Your task to perform on an android device: Open notification settings Image 0: 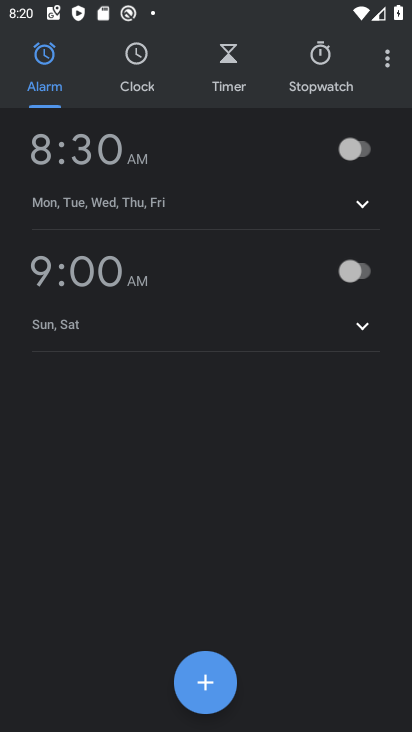
Step 0: press home button
Your task to perform on an android device: Open notification settings Image 1: 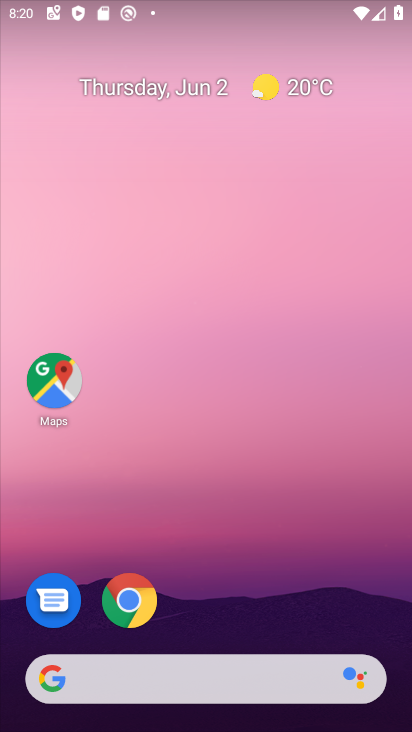
Step 1: drag from (368, 610) to (381, 226)
Your task to perform on an android device: Open notification settings Image 2: 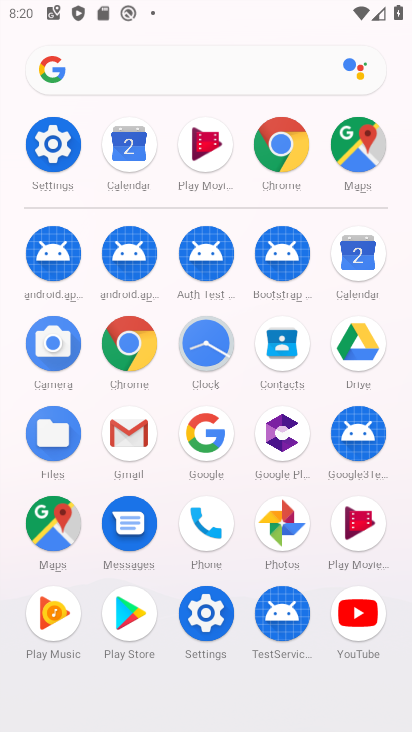
Step 2: click (213, 614)
Your task to perform on an android device: Open notification settings Image 3: 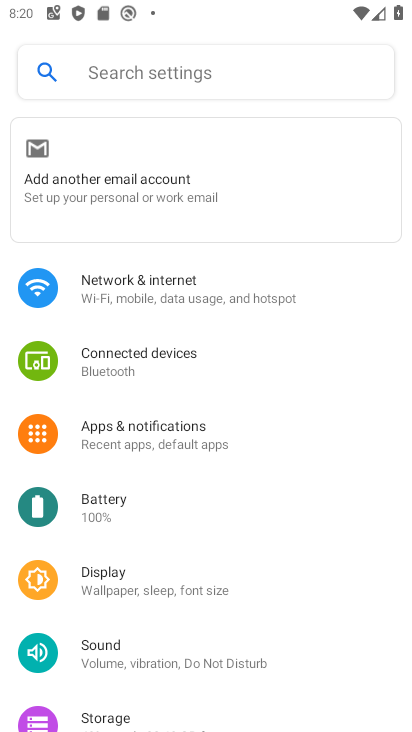
Step 3: drag from (313, 601) to (334, 481)
Your task to perform on an android device: Open notification settings Image 4: 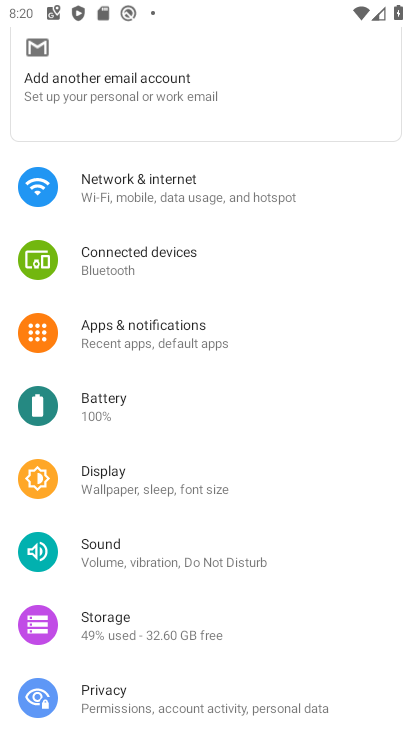
Step 4: drag from (353, 591) to (335, 468)
Your task to perform on an android device: Open notification settings Image 5: 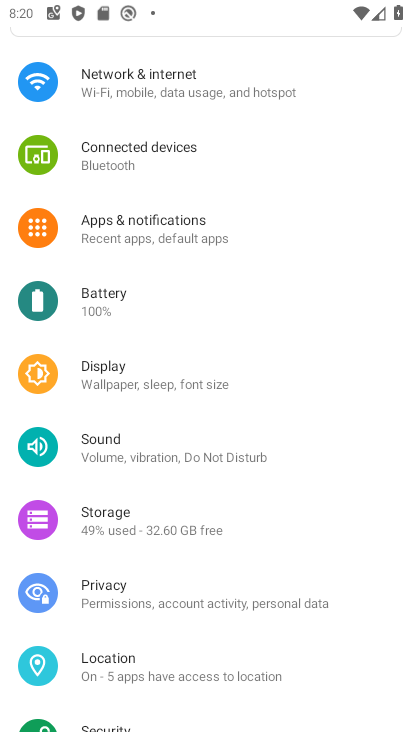
Step 5: drag from (370, 623) to (376, 449)
Your task to perform on an android device: Open notification settings Image 6: 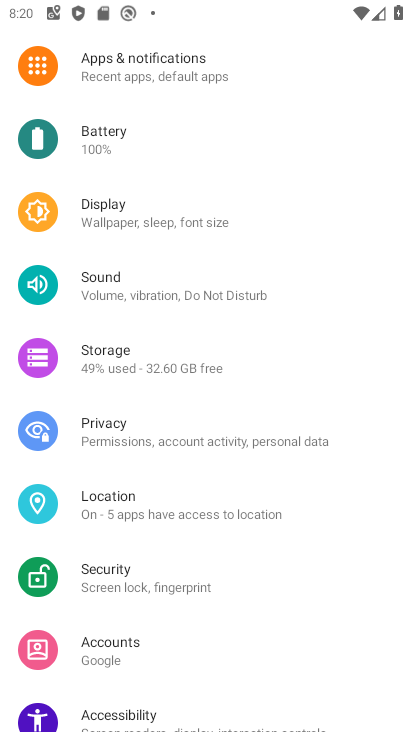
Step 6: drag from (339, 568) to (353, 368)
Your task to perform on an android device: Open notification settings Image 7: 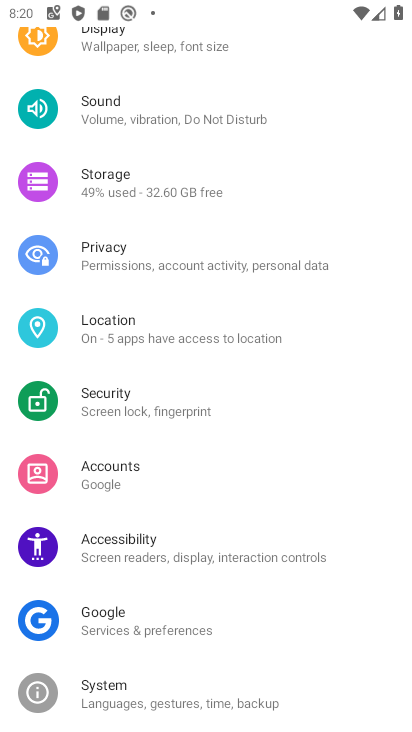
Step 7: drag from (340, 609) to (338, 426)
Your task to perform on an android device: Open notification settings Image 8: 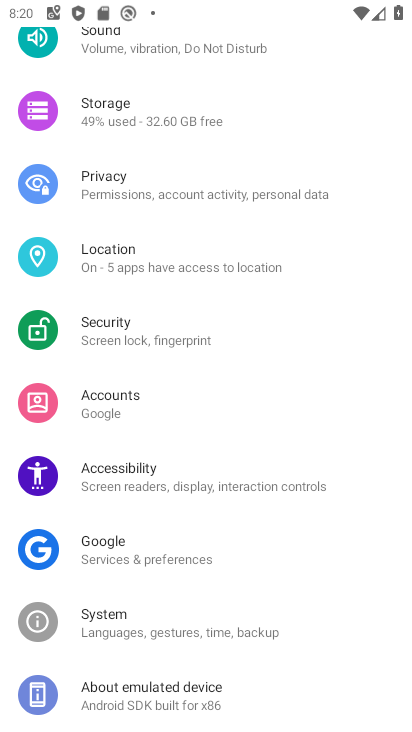
Step 8: drag from (350, 313) to (349, 418)
Your task to perform on an android device: Open notification settings Image 9: 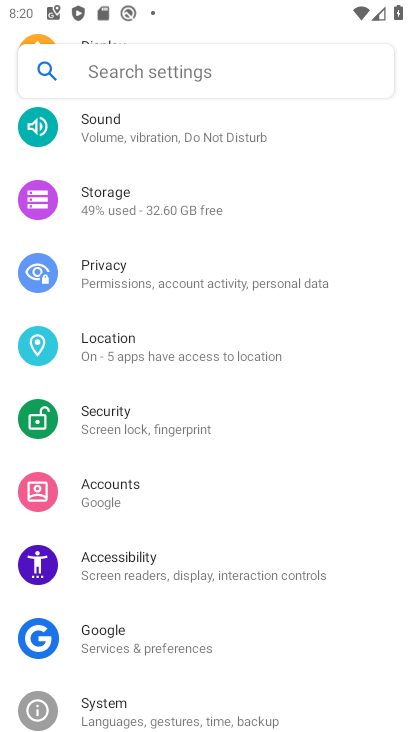
Step 9: drag from (347, 294) to (350, 386)
Your task to perform on an android device: Open notification settings Image 10: 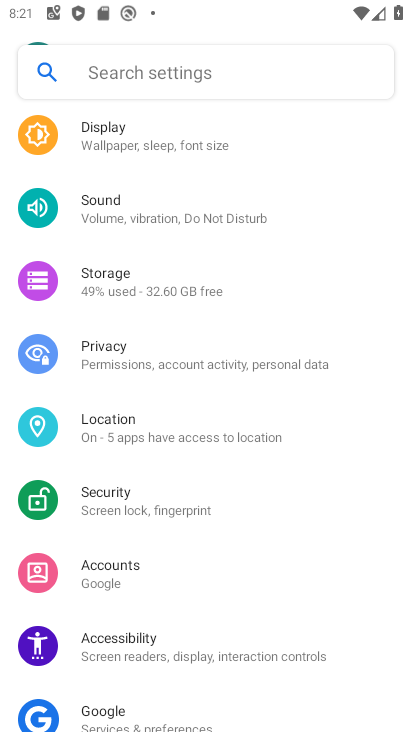
Step 10: drag from (352, 240) to (347, 381)
Your task to perform on an android device: Open notification settings Image 11: 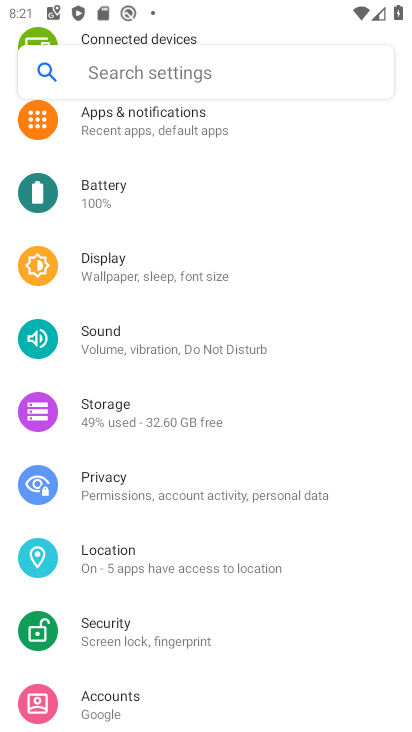
Step 11: drag from (345, 249) to (350, 377)
Your task to perform on an android device: Open notification settings Image 12: 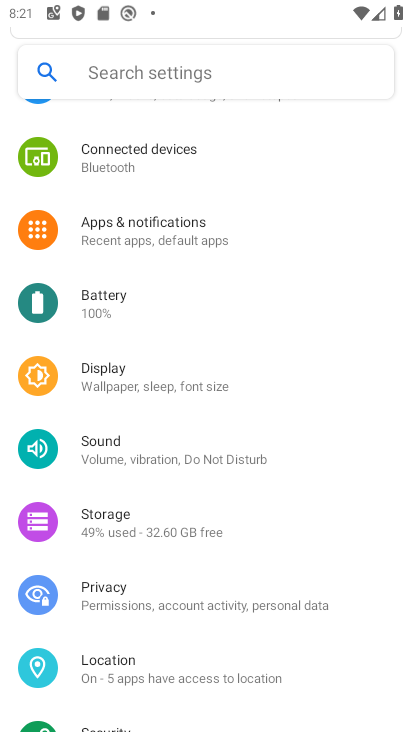
Step 12: drag from (343, 258) to (347, 415)
Your task to perform on an android device: Open notification settings Image 13: 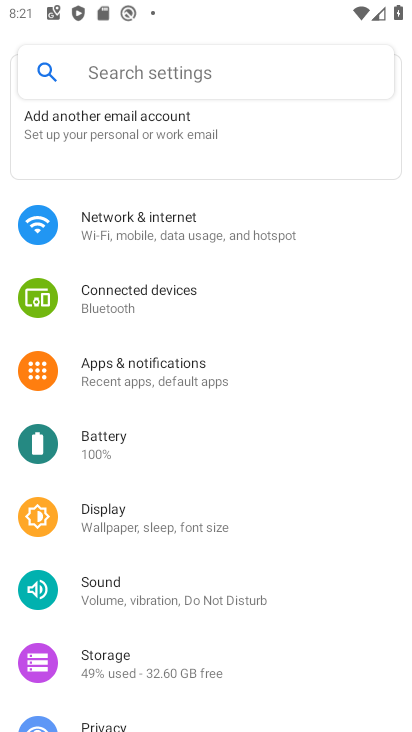
Step 13: drag from (346, 250) to (344, 429)
Your task to perform on an android device: Open notification settings Image 14: 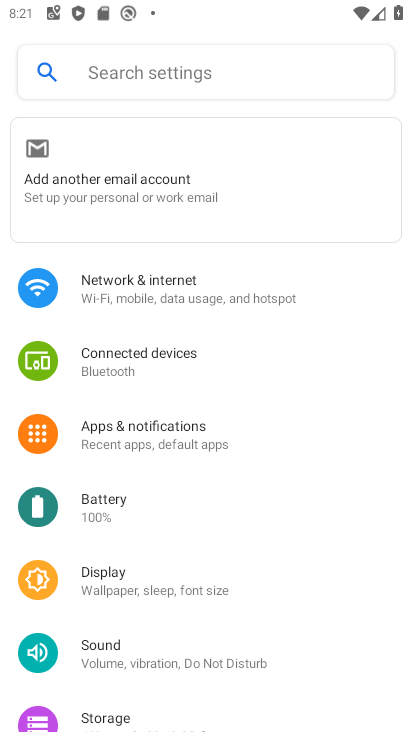
Step 14: click (190, 437)
Your task to perform on an android device: Open notification settings Image 15: 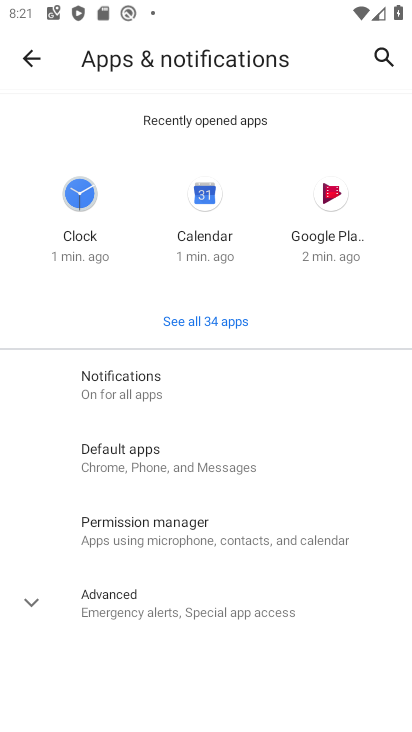
Step 15: click (151, 389)
Your task to perform on an android device: Open notification settings Image 16: 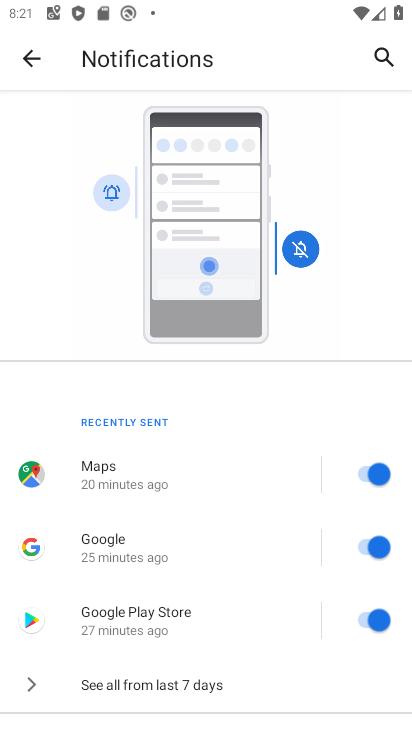
Step 16: task complete